Your task to perform on an android device: uninstall "Google Photos" Image 0: 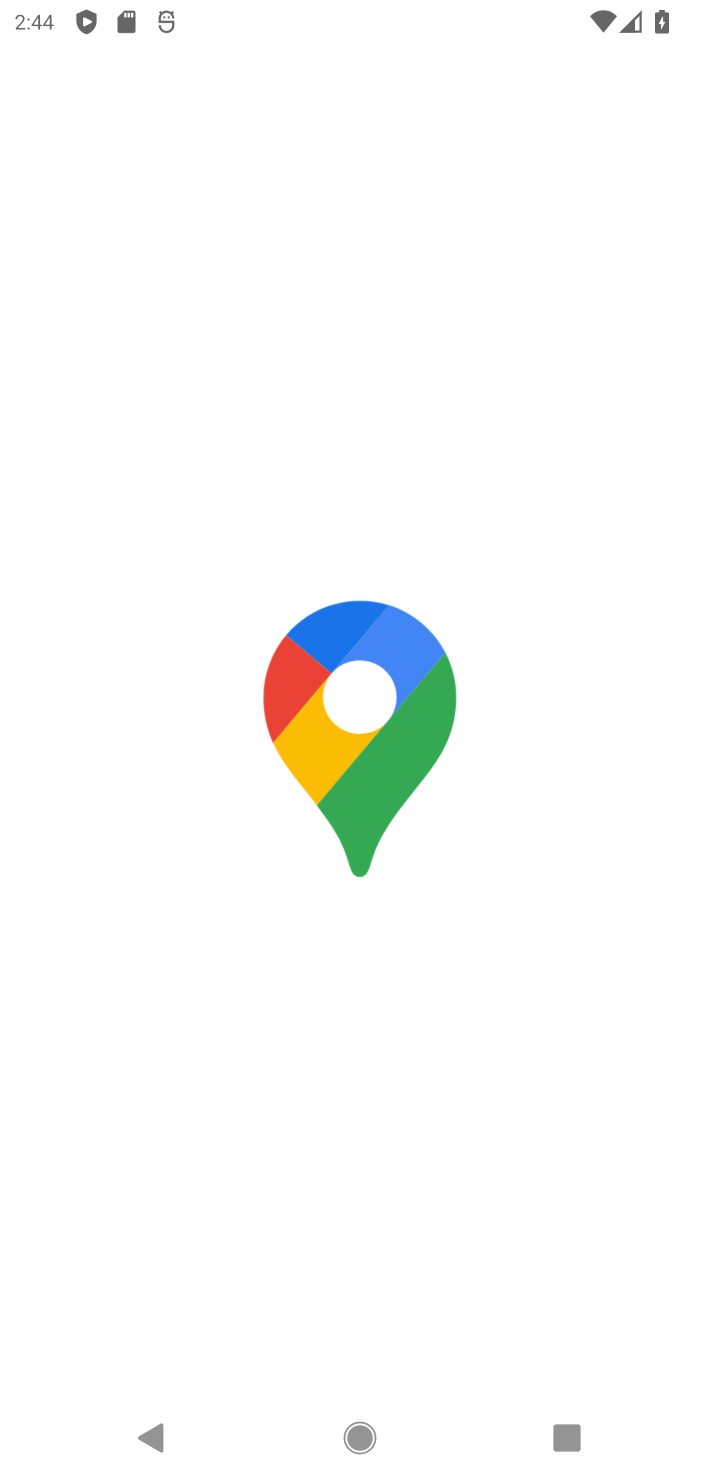
Step 0: press home button
Your task to perform on an android device: uninstall "Google Photos" Image 1: 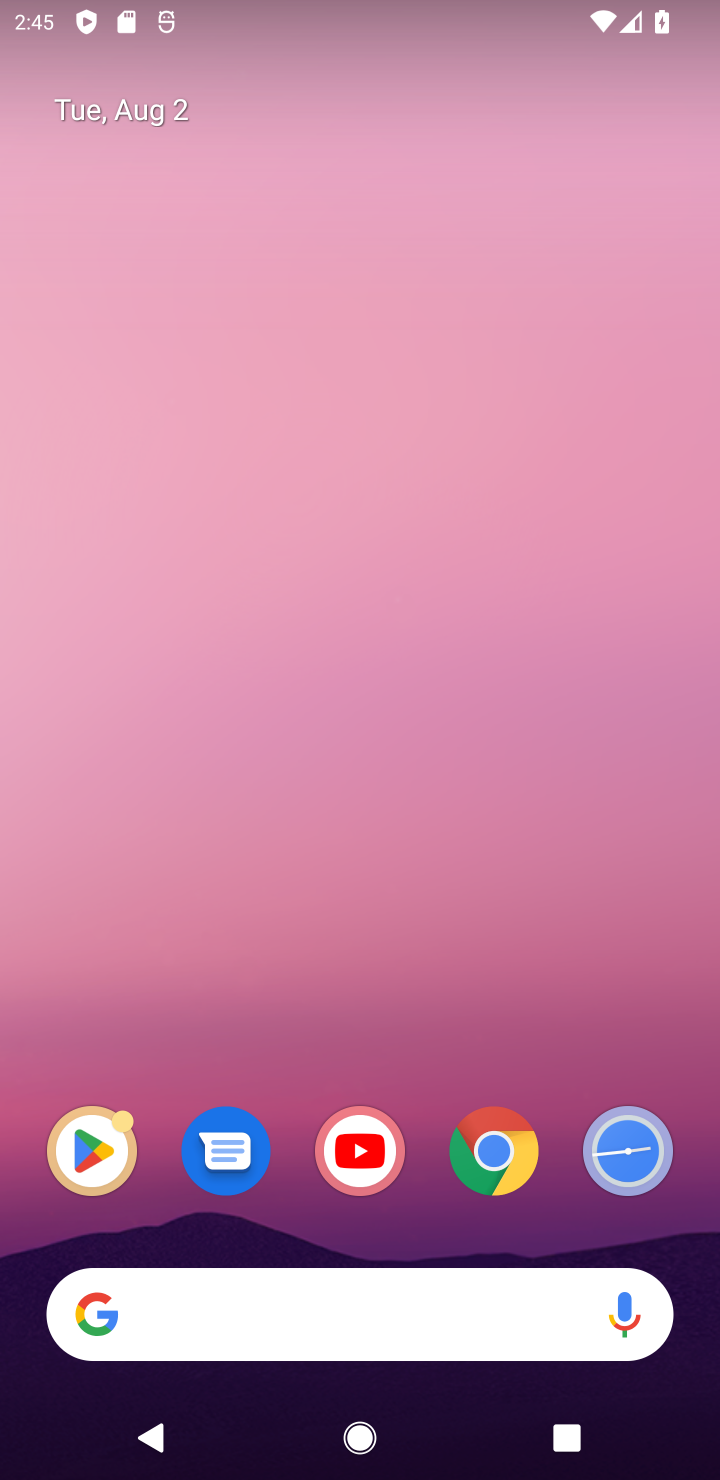
Step 1: drag from (414, 1336) to (430, 209)
Your task to perform on an android device: uninstall "Google Photos" Image 2: 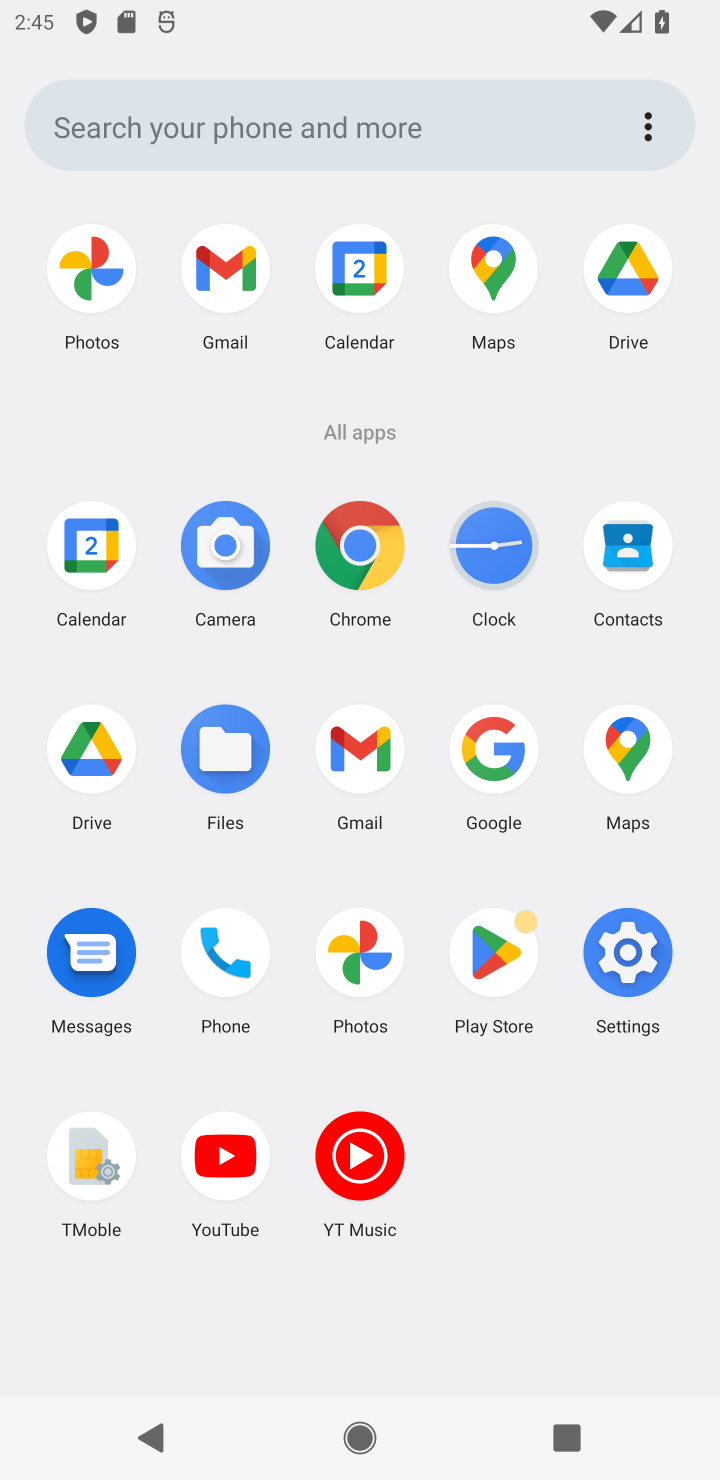
Step 2: click (490, 953)
Your task to perform on an android device: uninstall "Google Photos" Image 3: 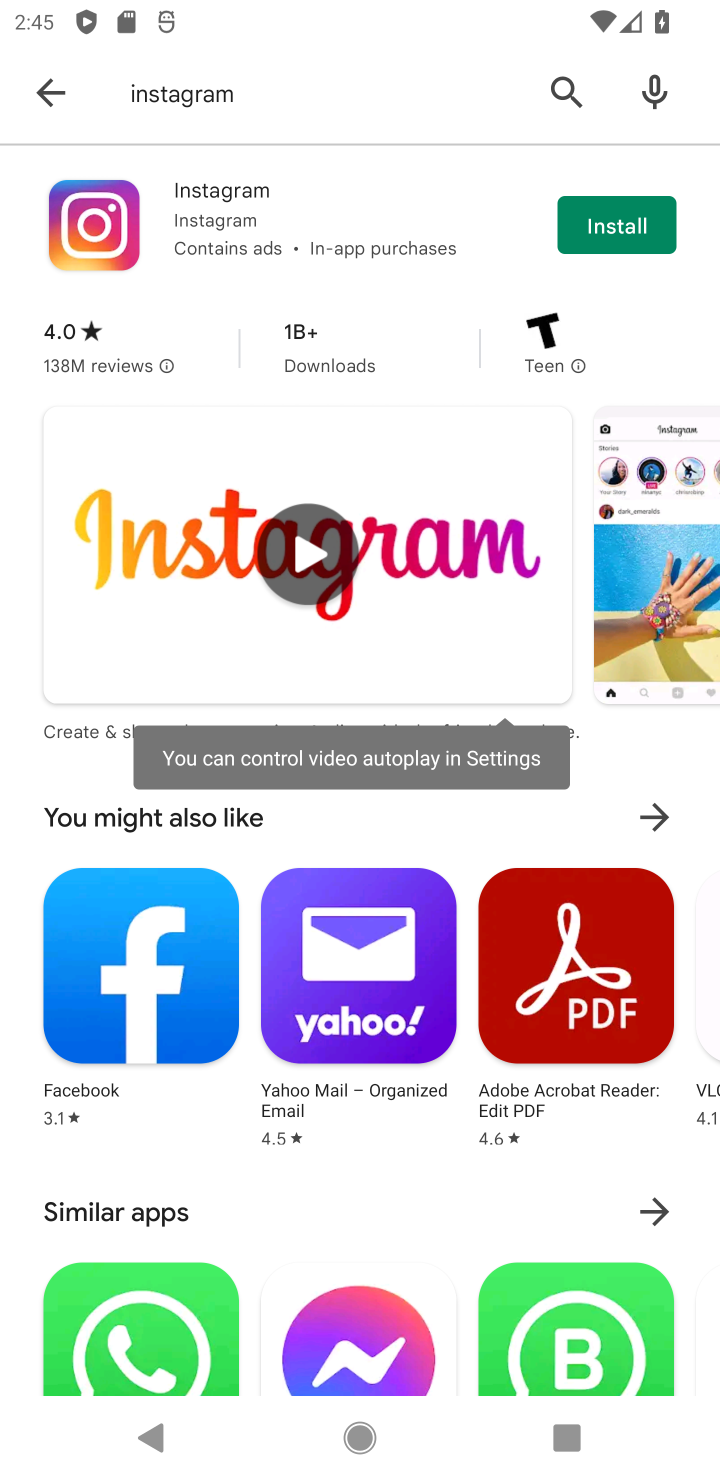
Step 3: click (562, 87)
Your task to perform on an android device: uninstall "Google Photos" Image 4: 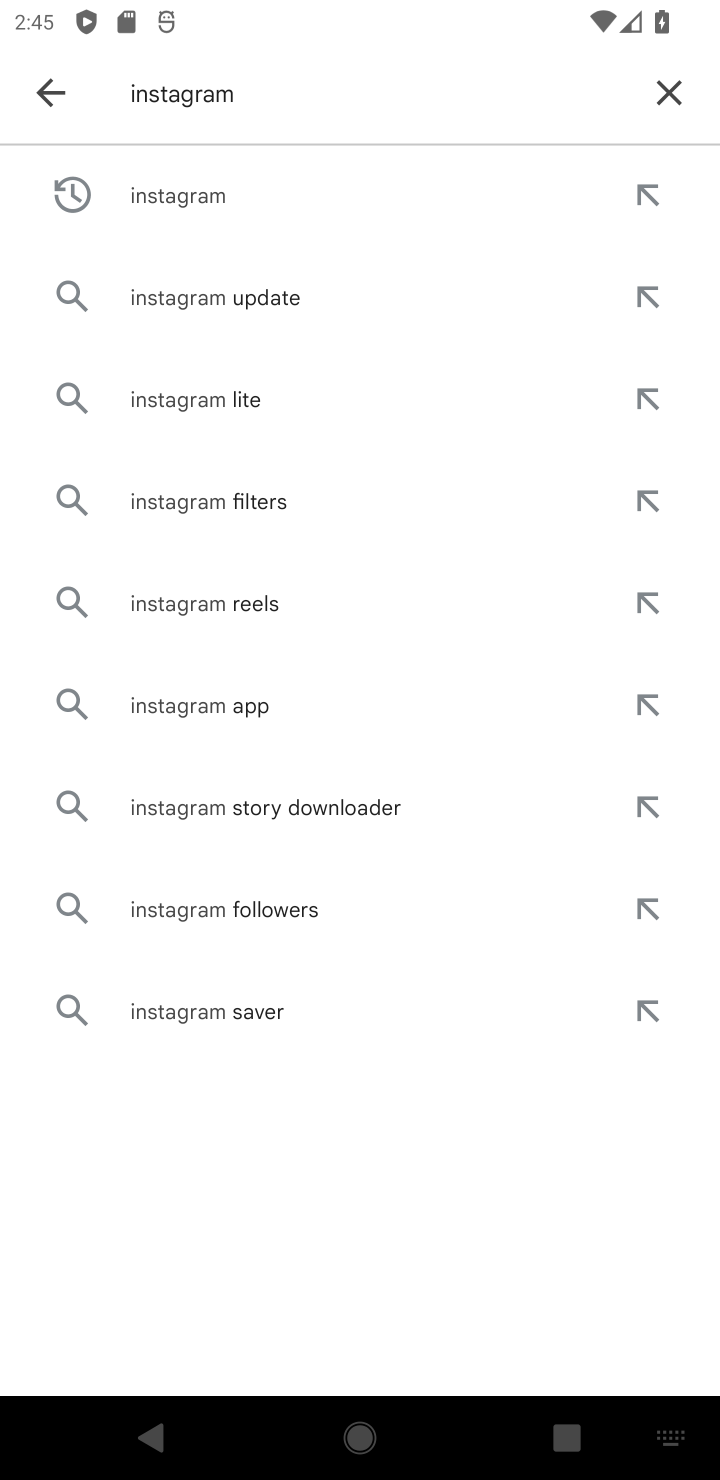
Step 4: click (683, 87)
Your task to perform on an android device: uninstall "Google Photos" Image 5: 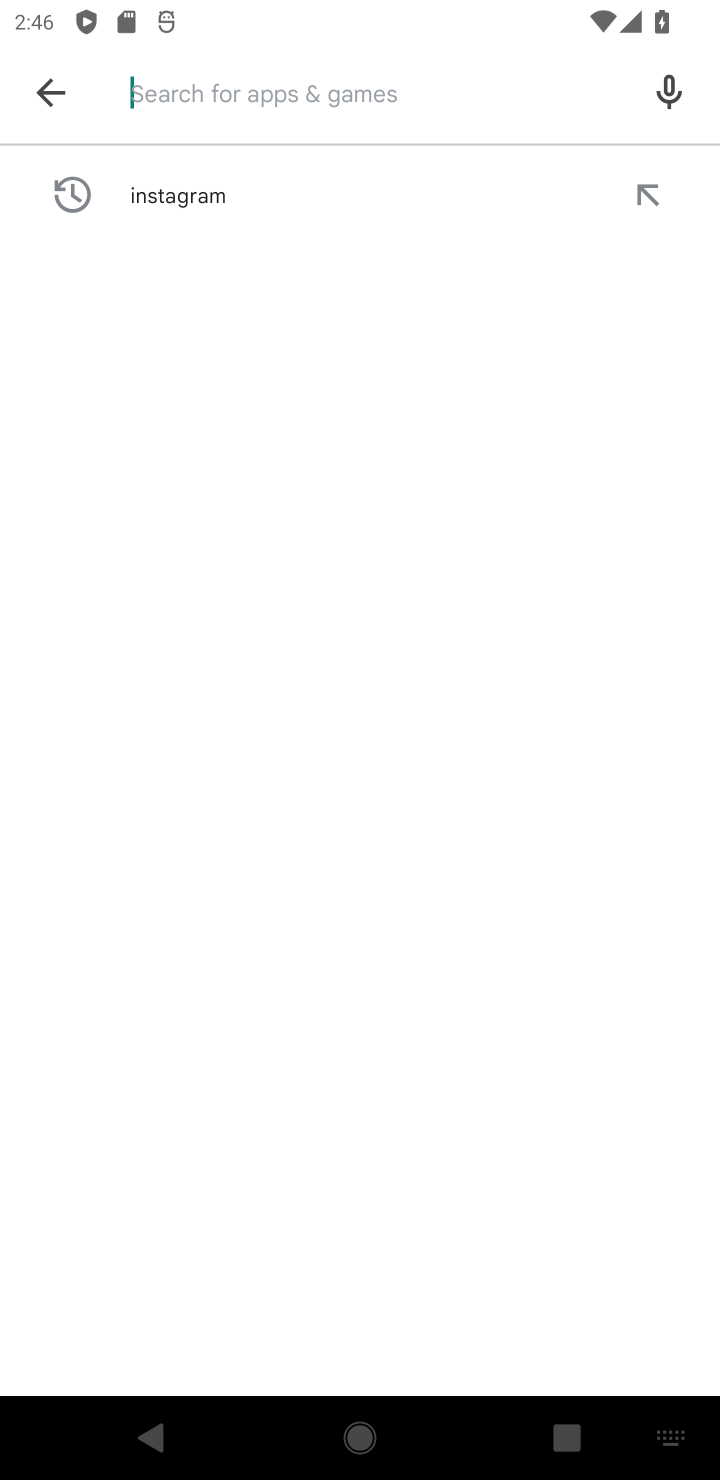
Step 5: type "Google Photo"
Your task to perform on an android device: uninstall "Google Photos" Image 6: 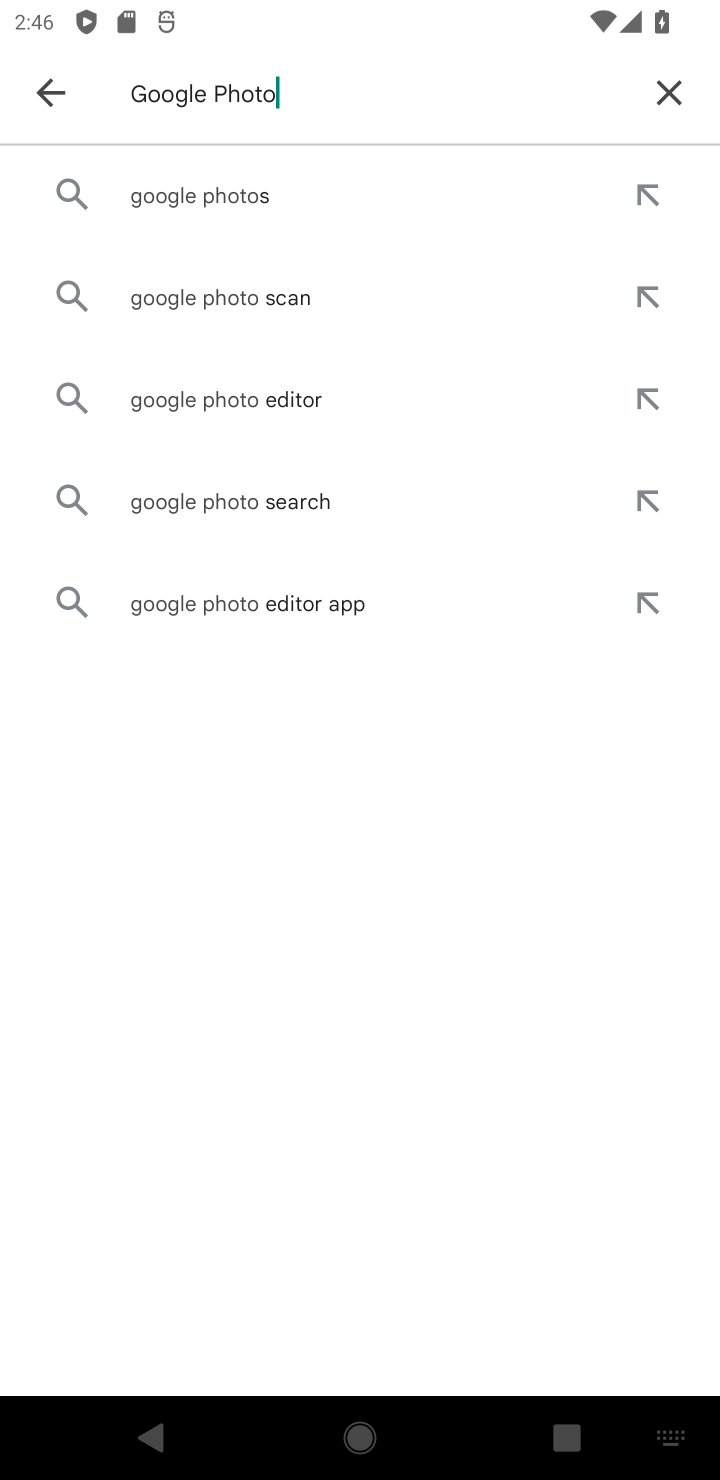
Step 6: click (224, 187)
Your task to perform on an android device: uninstall "Google Photos" Image 7: 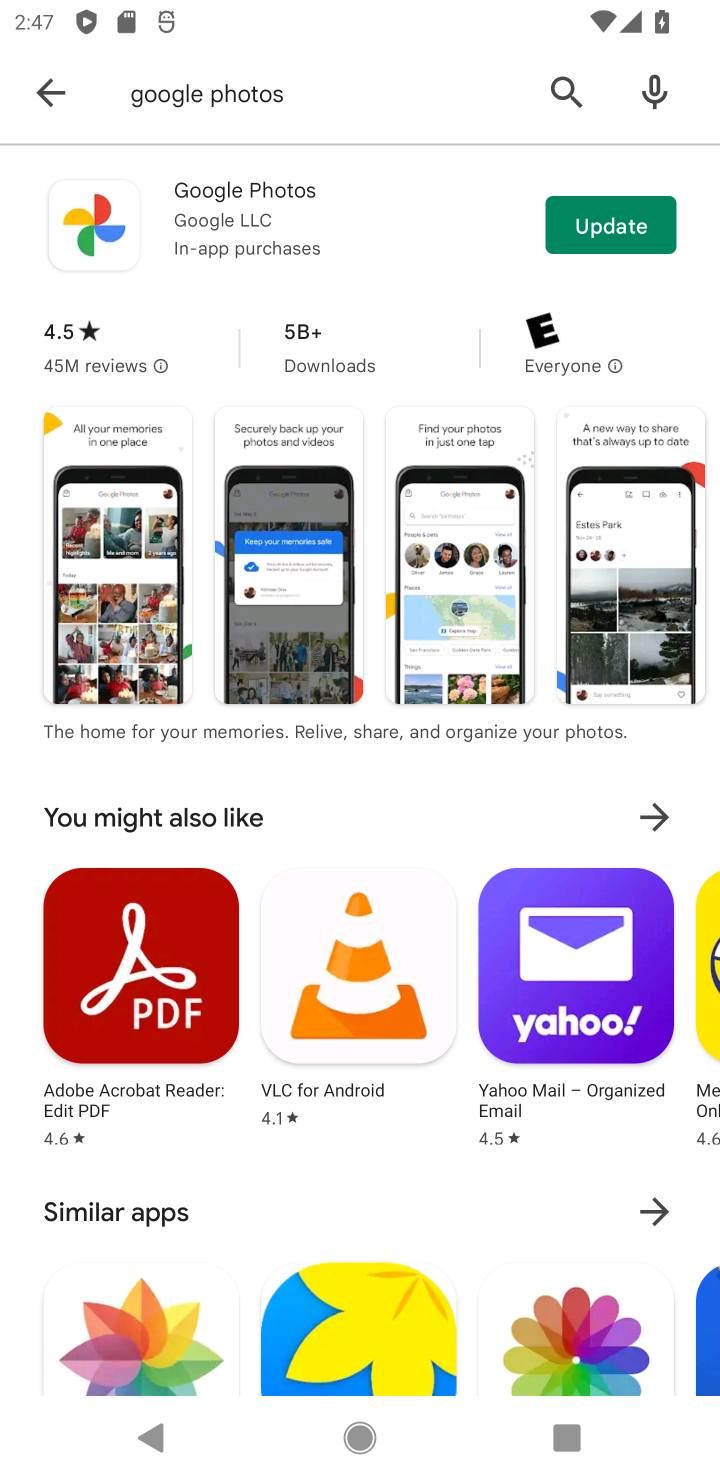
Step 7: task complete